Your task to perform on an android device: Show me productivity apps on the Play Store Image 0: 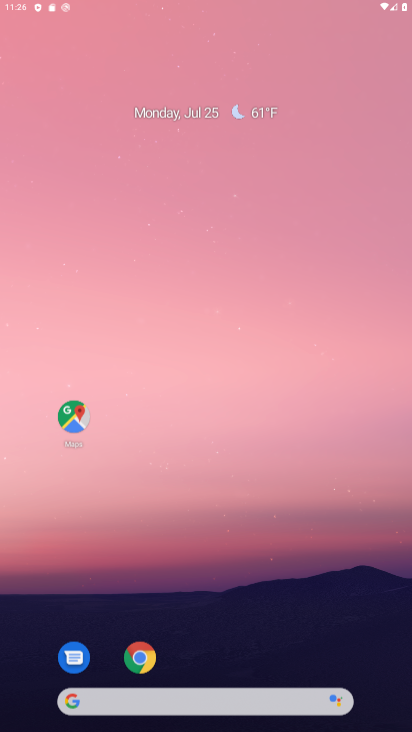
Step 0: click (311, 461)
Your task to perform on an android device: Show me productivity apps on the Play Store Image 1: 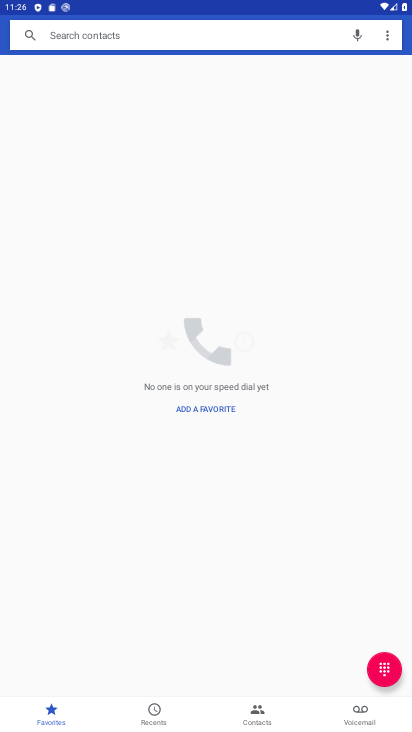
Step 1: press home button
Your task to perform on an android device: Show me productivity apps on the Play Store Image 2: 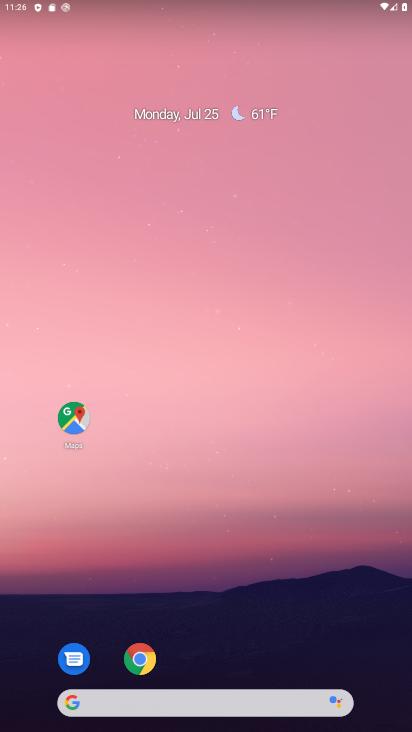
Step 2: drag from (163, 731) to (238, 63)
Your task to perform on an android device: Show me productivity apps on the Play Store Image 3: 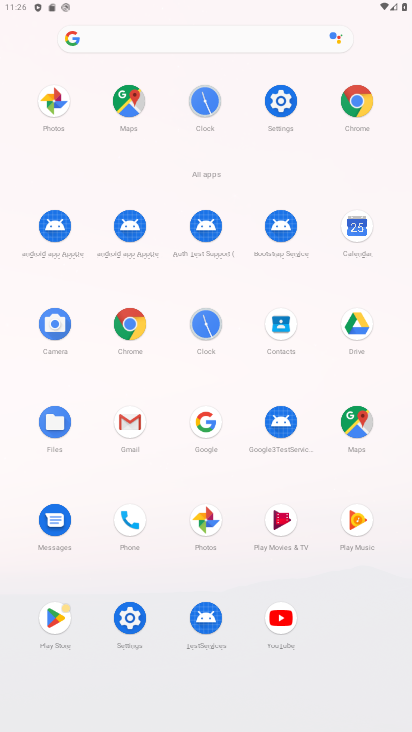
Step 3: click (52, 613)
Your task to perform on an android device: Show me productivity apps on the Play Store Image 4: 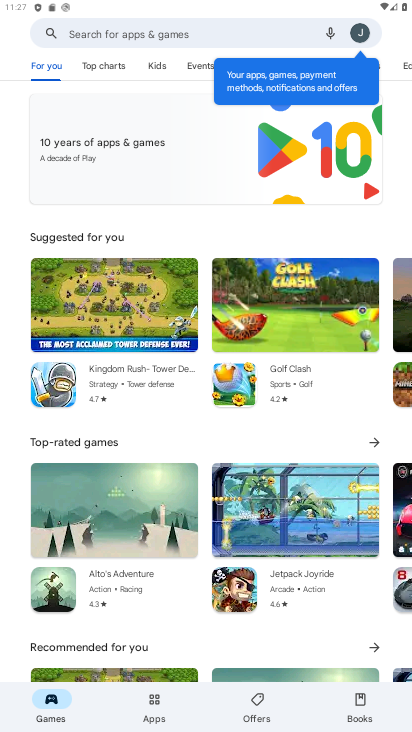
Step 4: click (150, 699)
Your task to perform on an android device: Show me productivity apps on the Play Store Image 5: 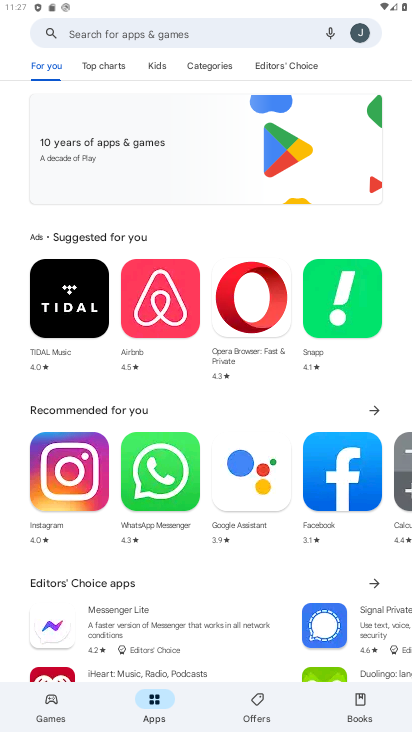
Step 5: click (204, 62)
Your task to perform on an android device: Show me productivity apps on the Play Store Image 6: 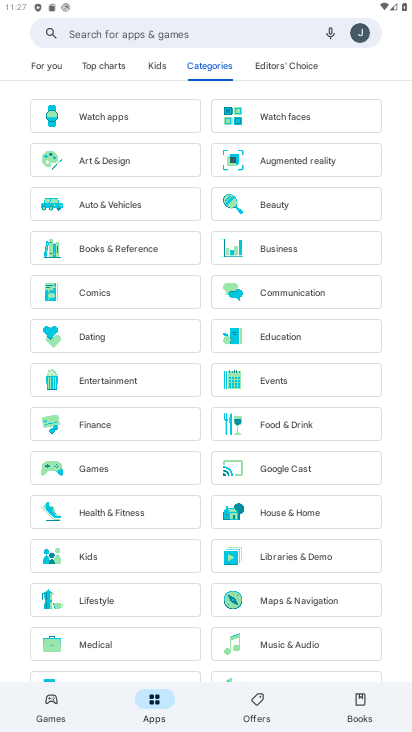
Step 6: drag from (185, 632) to (176, 306)
Your task to perform on an android device: Show me productivity apps on the Play Store Image 7: 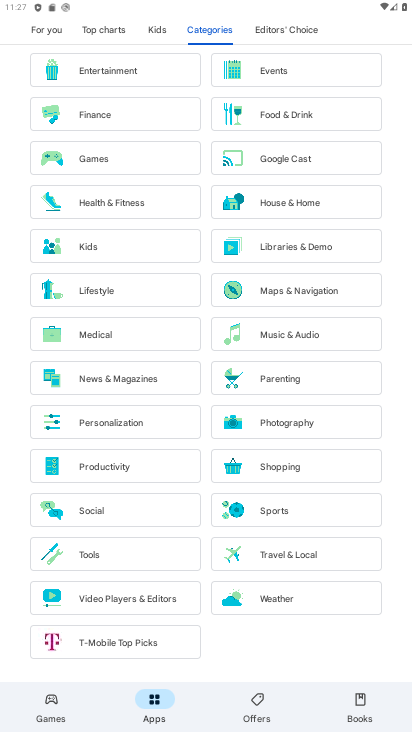
Step 7: click (117, 469)
Your task to perform on an android device: Show me productivity apps on the Play Store Image 8: 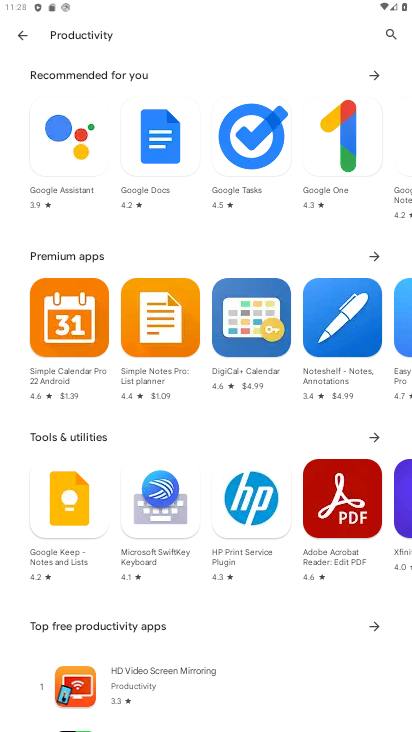
Step 8: task complete